Your task to perform on an android device: see creations saved in the google photos Image 0: 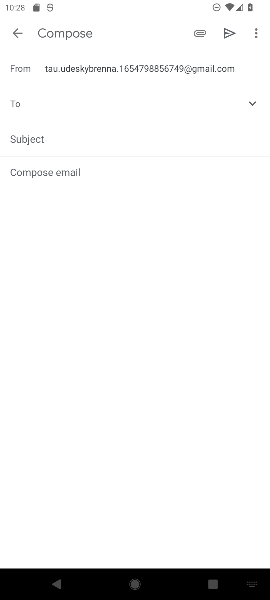
Step 0: press home button
Your task to perform on an android device: see creations saved in the google photos Image 1: 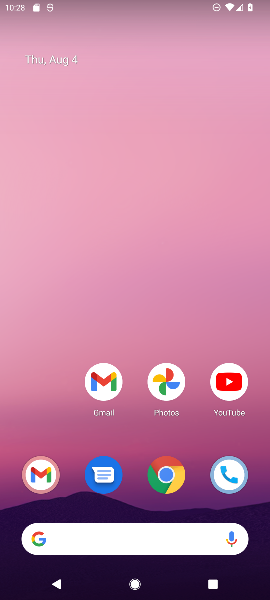
Step 1: drag from (107, 518) to (140, 81)
Your task to perform on an android device: see creations saved in the google photos Image 2: 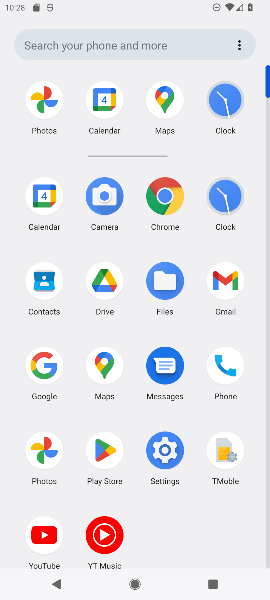
Step 2: click (33, 451)
Your task to perform on an android device: see creations saved in the google photos Image 3: 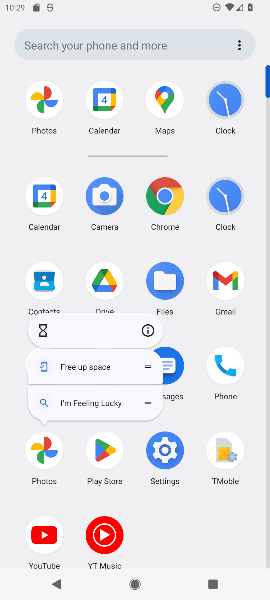
Step 3: click (35, 447)
Your task to perform on an android device: see creations saved in the google photos Image 4: 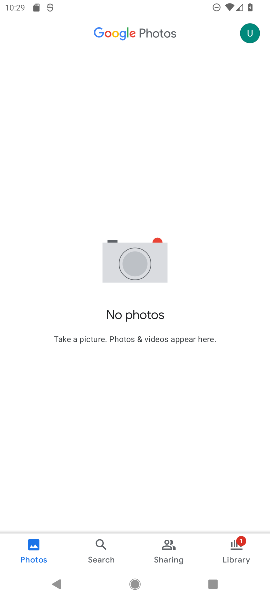
Step 4: click (240, 549)
Your task to perform on an android device: see creations saved in the google photos Image 5: 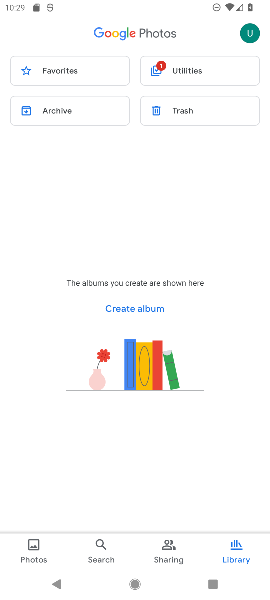
Step 5: drag from (137, 187) to (202, 477)
Your task to perform on an android device: see creations saved in the google photos Image 6: 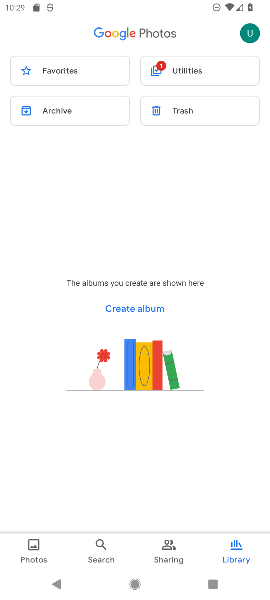
Step 6: click (102, 548)
Your task to perform on an android device: see creations saved in the google photos Image 7: 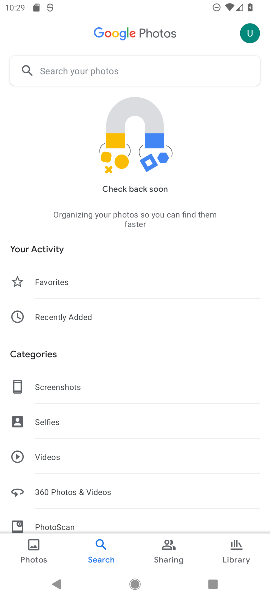
Step 7: click (125, 66)
Your task to perform on an android device: see creations saved in the google photos Image 8: 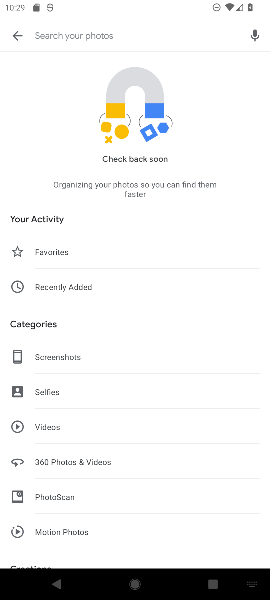
Step 8: drag from (126, 463) to (143, 184)
Your task to perform on an android device: see creations saved in the google photos Image 9: 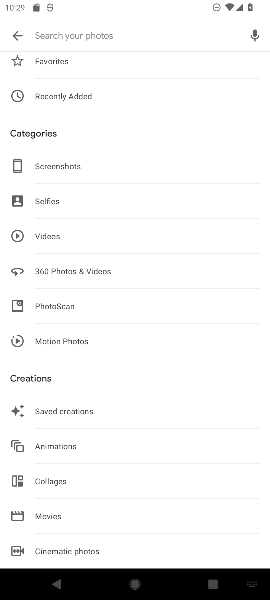
Step 9: click (112, 410)
Your task to perform on an android device: see creations saved in the google photos Image 10: 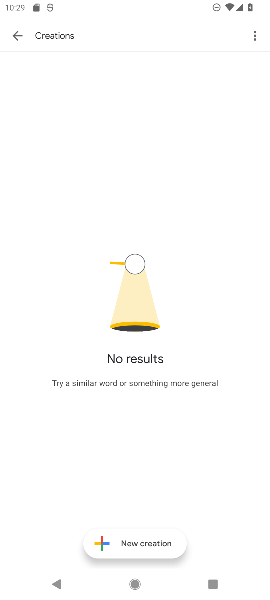
Step 10: task complete